Your task to perform on an android device: turn off translation in the chrome app Image 0: 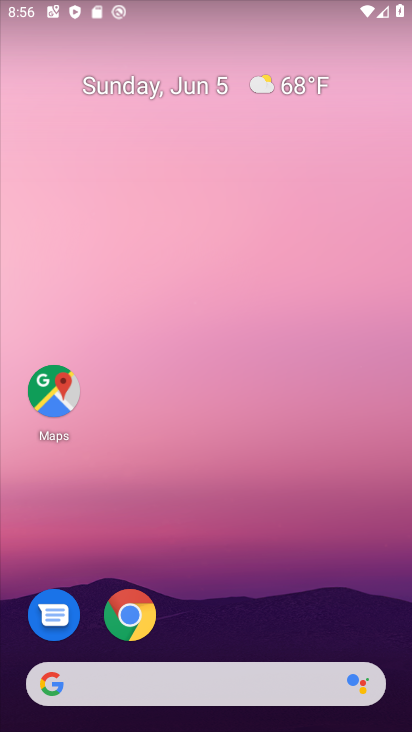
Step 0: click (127, 621)
Your task to perform on an android device: turn off translation in the chrome app Image 1: 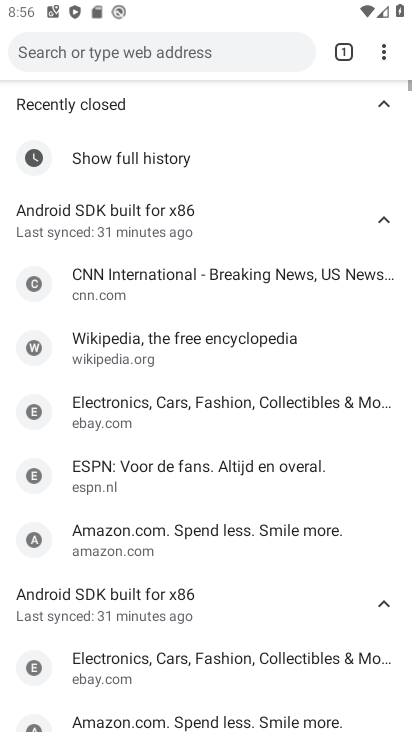
Step 1: click (392, 59)
Your task to perform on an android device: turn off translation in the chrome app Image 2: 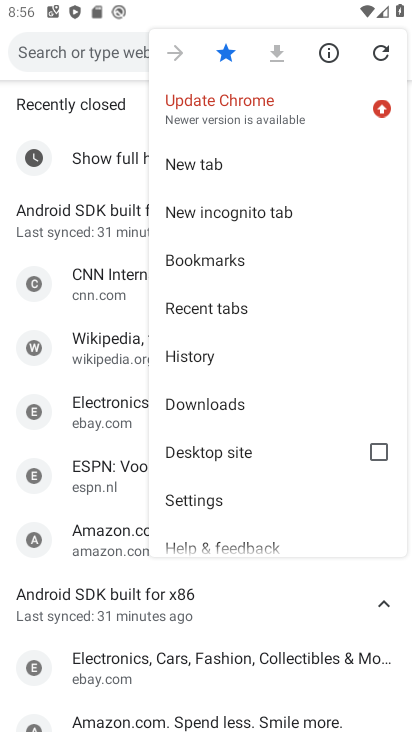
Step 2: click (204, 509)
Your task to perform on an android device: turn off translation in the chrome app Image 3: 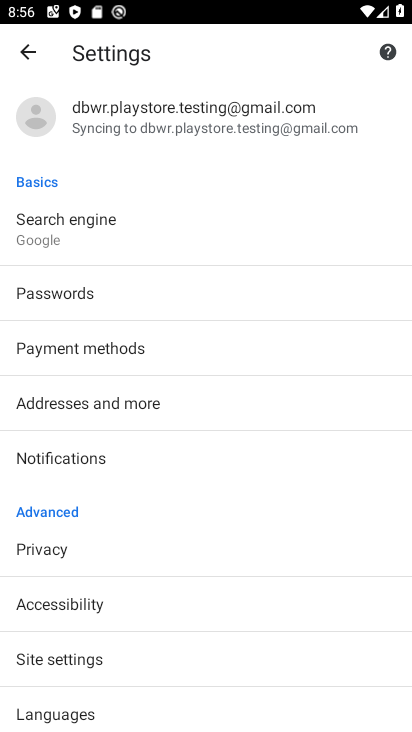
Step 3: click (66, 716)
Your task to perform on an android device: turn off translation in the chrome app Image 4: 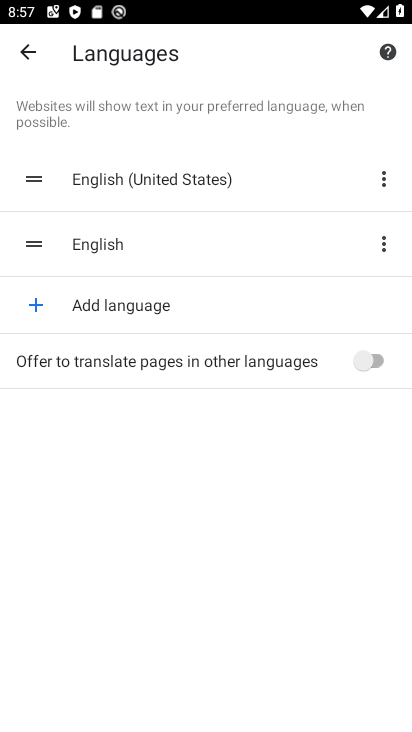
Step 4: task complete